Your task to perform on an android device: check google app version Image 0: 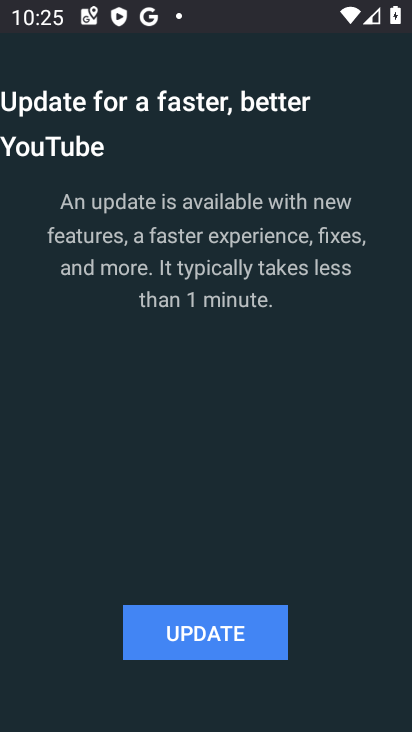
Step 0: press home button
Your task to perform on an android device: check google app version Image 1: 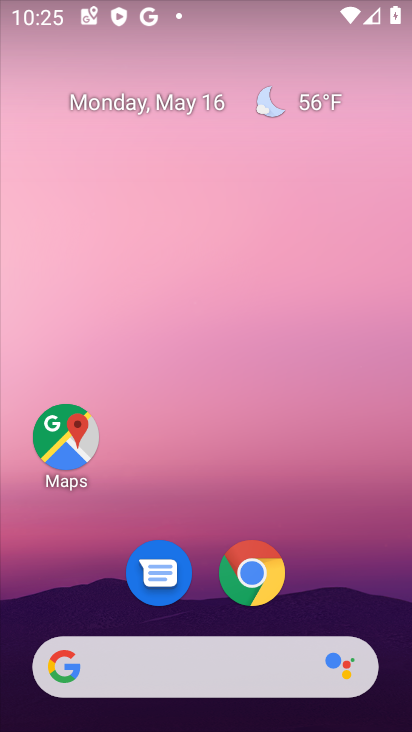
Step 1: drag from (297, 525) to (228, 107)
Your task to perform on an android device: check google app version Image 2: 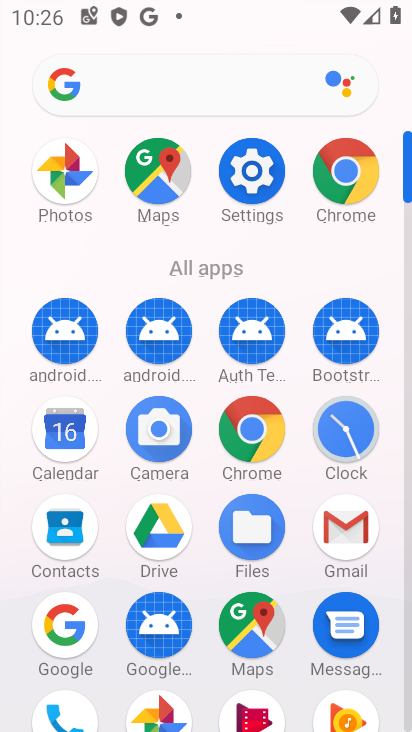
Step 2: click (74, 614)
Your task to perform on an android device: check google app version Image 3: 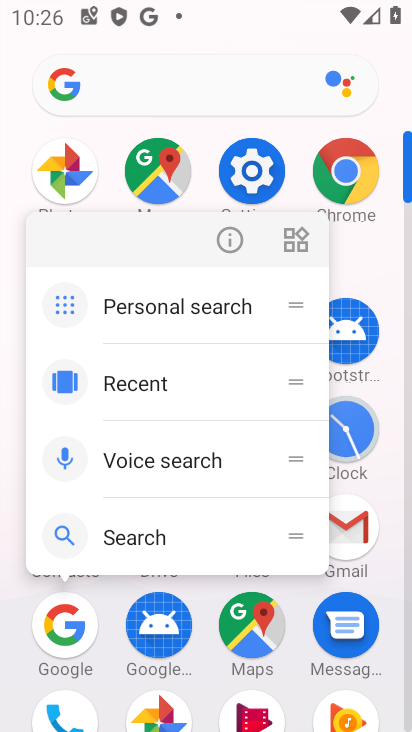
Step 3: click (240, 238)
Your task to perform on an android device: check google app version Image 4: 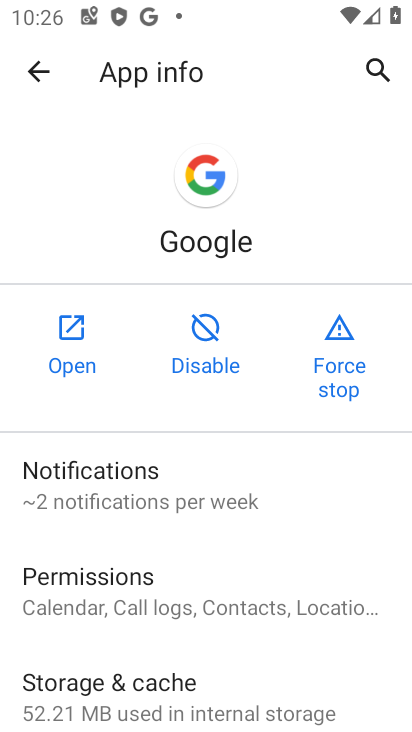
Step 4: drag from (296, 579) to (281, 258)
Your task to perform on an android device: check google app version Image 5: 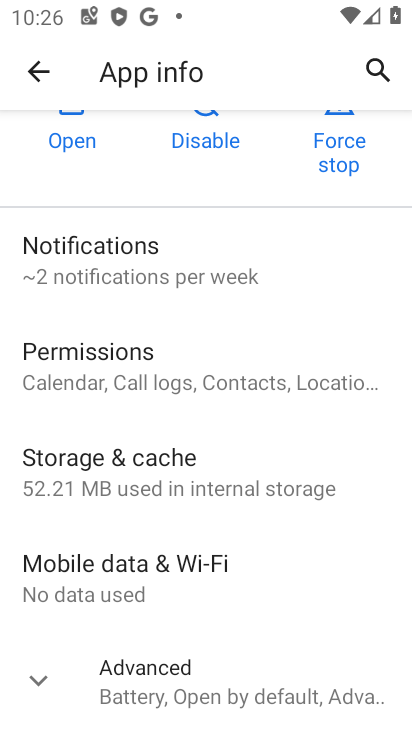
Step 5: click (232, 689)
Your task to perform on an android device: check google app version Image 6: 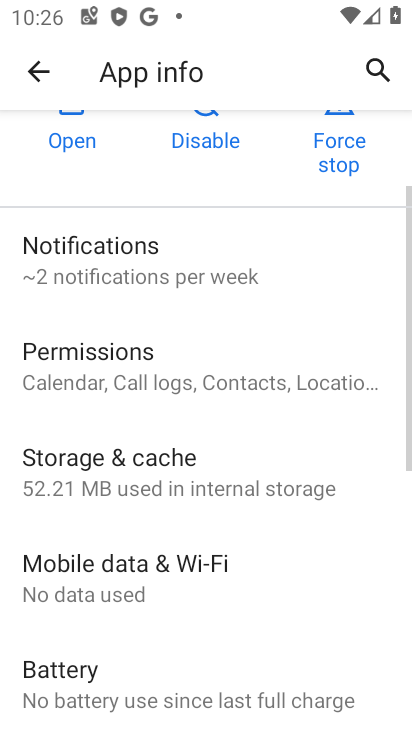
Step 6: task complete